Your task to perform on an android device: open chrome privacy settings Image 0: 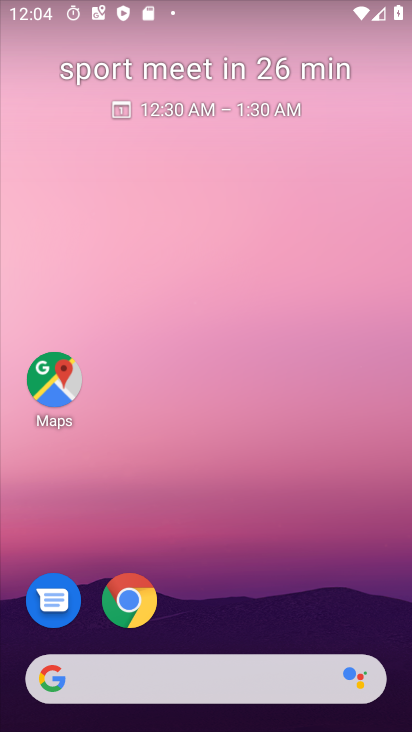
Step 0: click (135, 595)
Your task to perform on an android device: open chrome privacy settings Image 1: 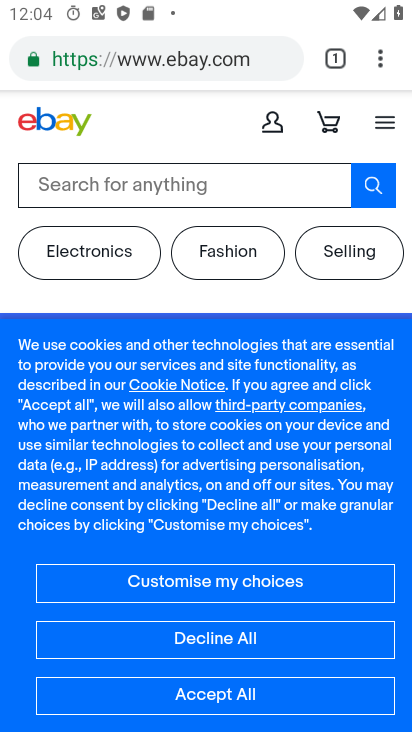
Step 1: click (375, 62)
Your task to perform on an android device: open chrome privacy settings Image 2: 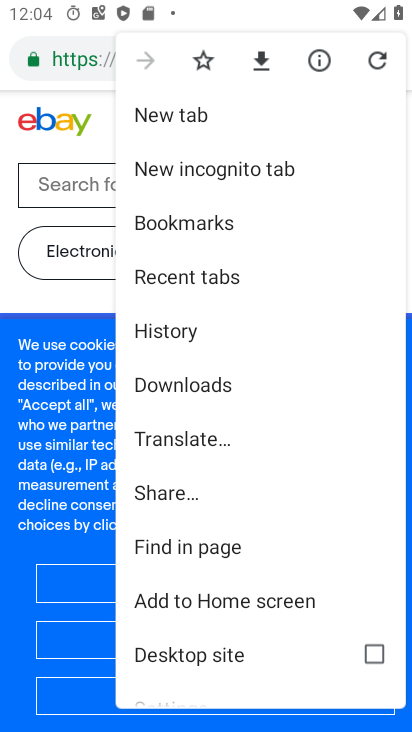
Step 2: drag from (182, 598) to (245, 50)
Your task to perform on an android device: open chrome privacy settings Image 3: 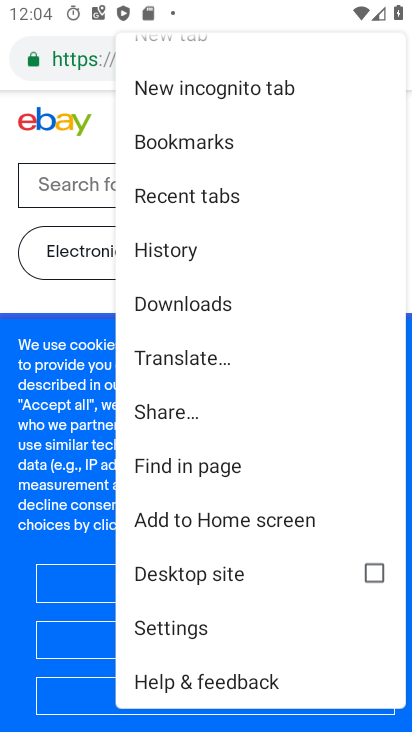
Step 3: click (203, 624)
Your task to perform on an android device: open chrome privacy settings Image 4: 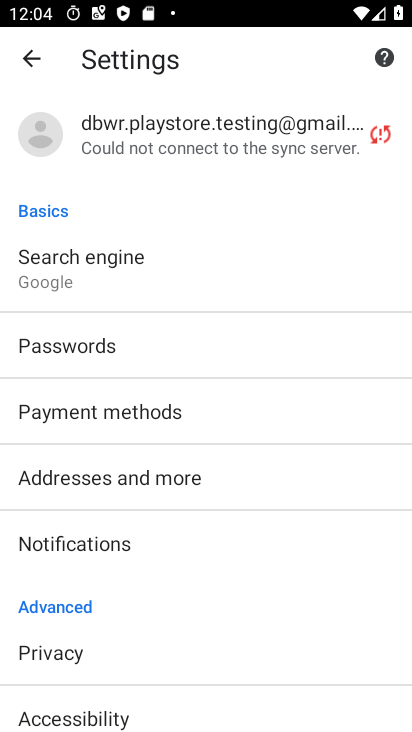
Step 4: drag from (102, 668) to (132, 543)
Your task to perform on an android device: open chrome privacy settings Image 5: 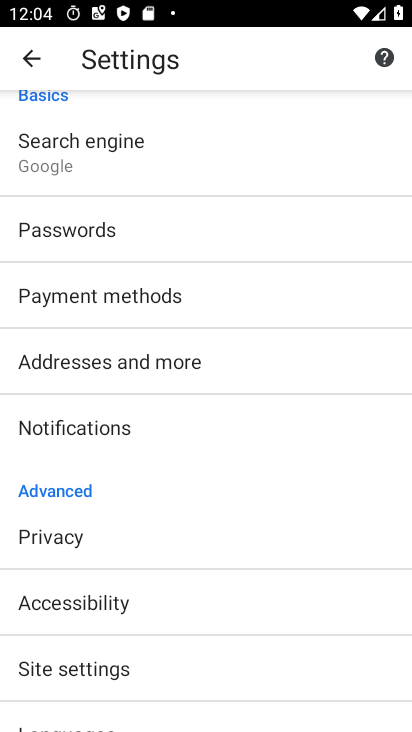
Step 5: click (76, 532)
Your task to perform on an android device: open chrome privacy settings Image 6: 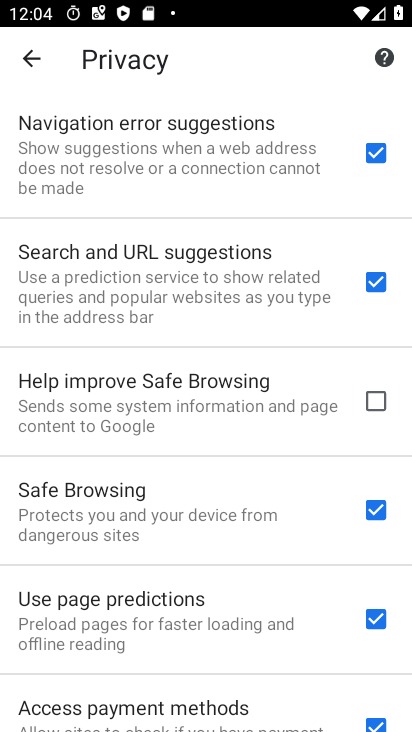
Step 6: task complete